Your task to perform on an android device: snooze an email in the gmail app Image 0: 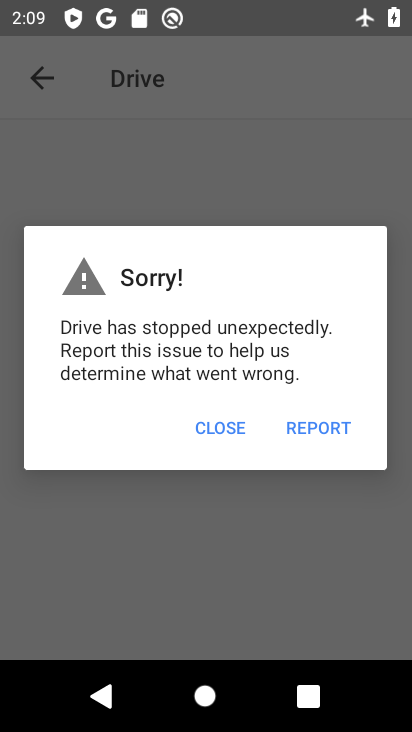
Step 0: click (209, 427)
Your task to perform on an android device: snooze an email in the gmail app Image 1: 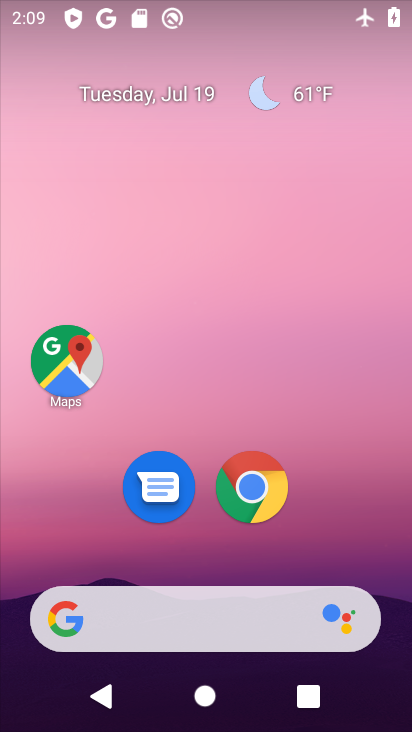
Step 1: drag from (176, 591) to (253, 0)
Your task to perform on an android device: snooze an email in the gmail app Image 2: 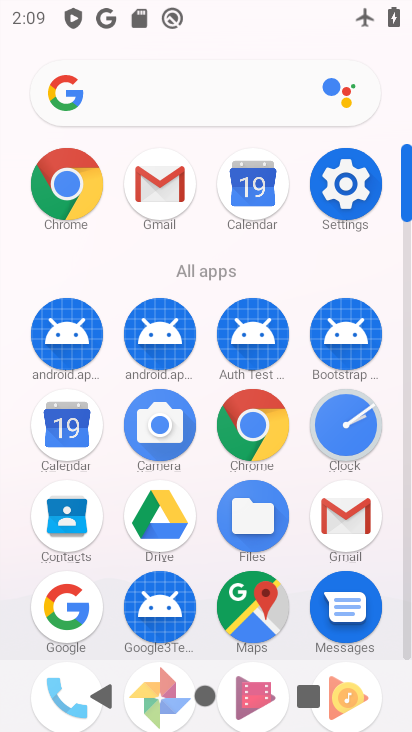
Step 2: click (157, 193)
Your task to perform on an android device: snooze an email in the gmail app Image 3: 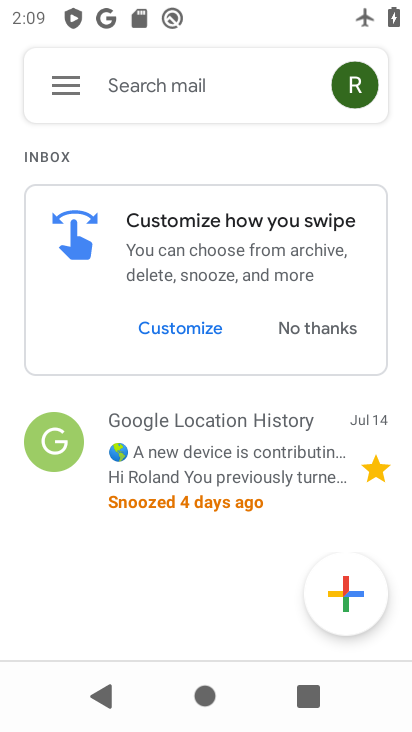
Step 3: click (67, 86)
Your task to perform on an android device: snooze an email in the gmail app Image 4: 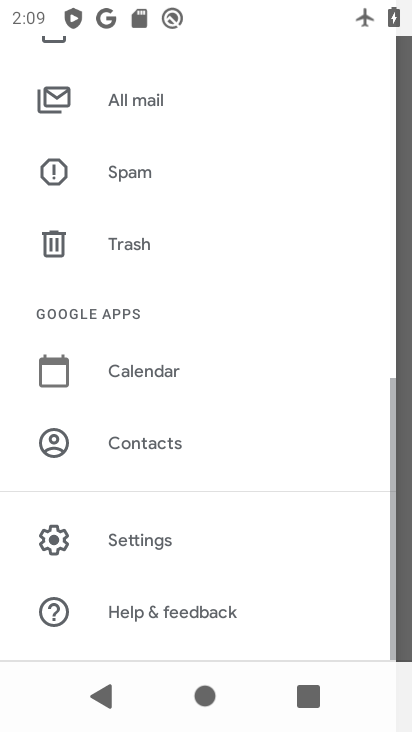
Step 4: click (133, 100)
Your task to perform on an android device: snooze an email in the gmail app Image 5: 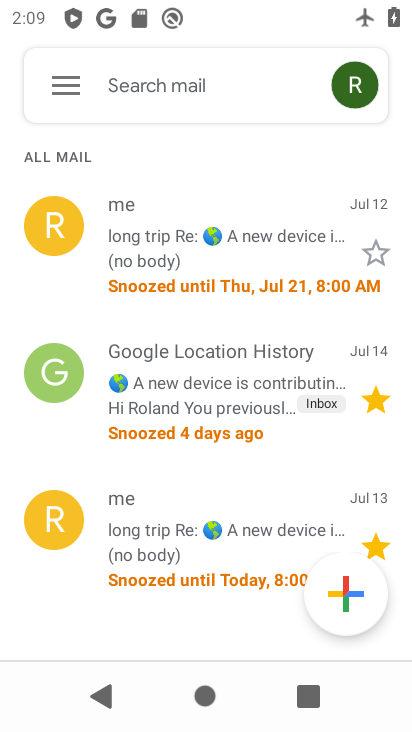
Step 5: task complete